Your task to perform on an android device: star an email in the gmail app Image 0: 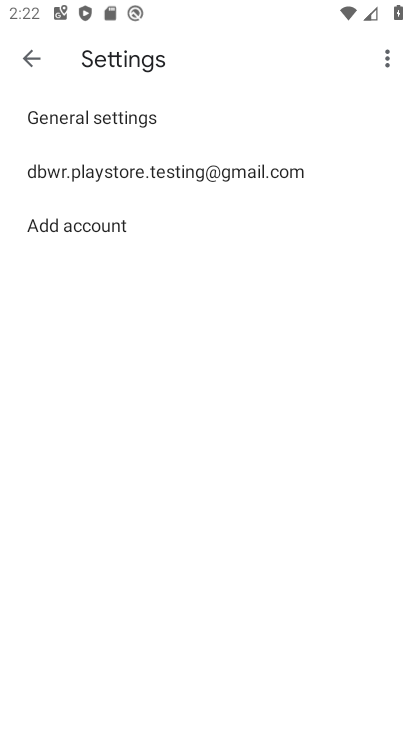
Step 0: press home button
Your task to perform on an android device: star an email in the gmail app Image 1: 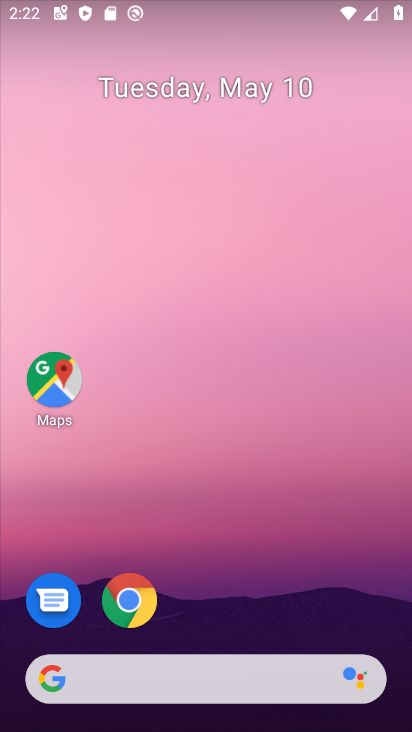
Step 1: drag from (273, 627) to (251, 147)
Your task to perform on an android device: star an email in the gmail app Image 2: 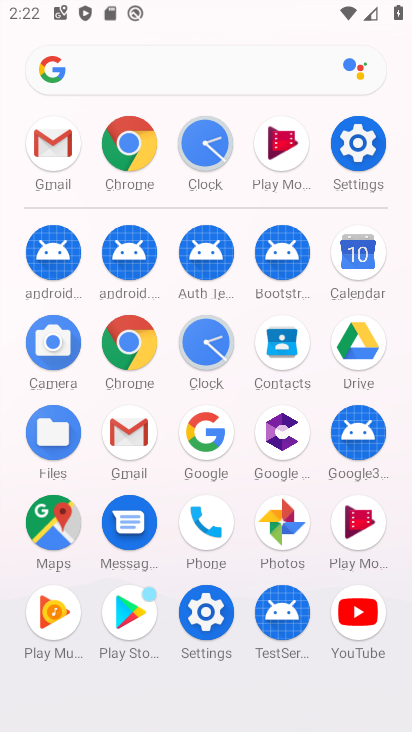
Step 2: click (133, 441)
Your task to perform on an android device: star an email in the gmail app Image 3: 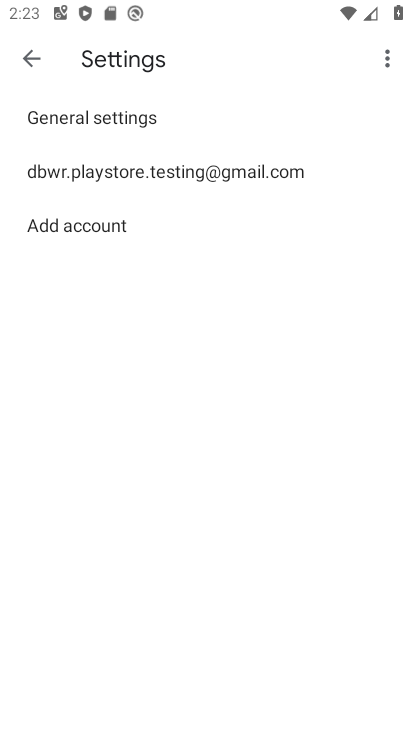
Step 3: click (26, 57)
Your task to perform on an android device: star an email in the gmail app Image 4: 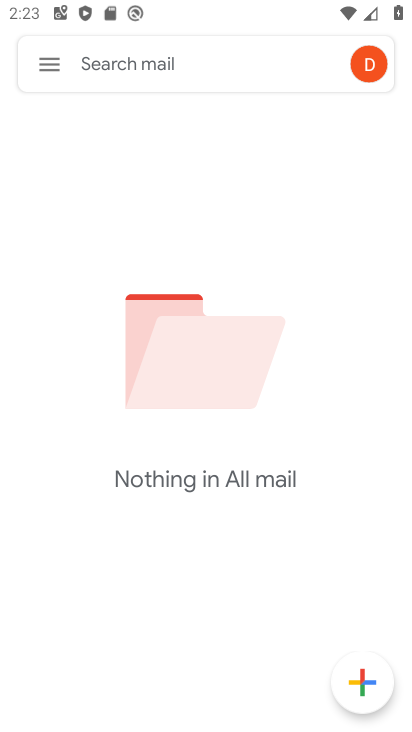
Step 4: click (35, 71)
Your task to perform on an android device: star an email in the gmail app Image 5: 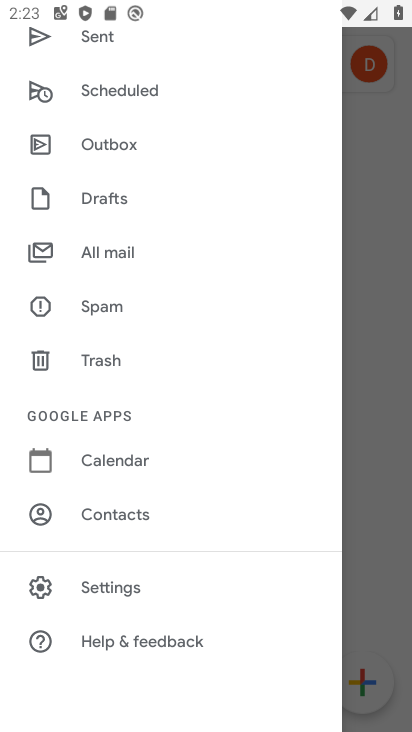
Step 5: task complete